Your task to perform on an android device: Go to Yahoo.com Image 0: 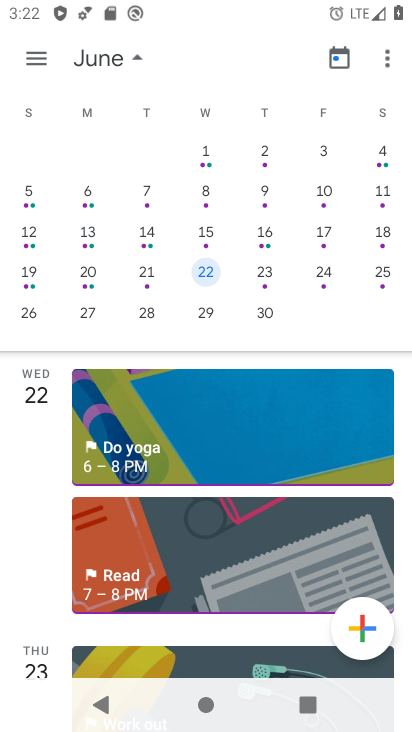
Step 0: press home button
Your task to perform on an android device: Go to Yahoo.com Image 1: 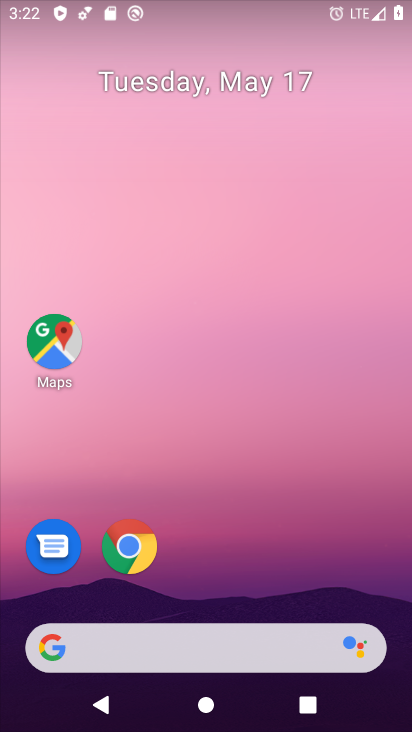
Step 1: drag from (394, 722) to (245, 726)
Your task to perform on an android device: Go to Yahoo.com Image 2: 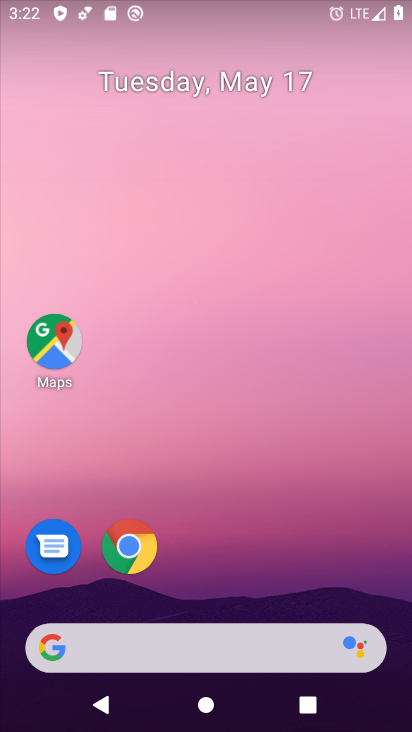
Step 2: click (122, 539)
Your task to perform on an android device: Go to Yahoo.com Image 3: 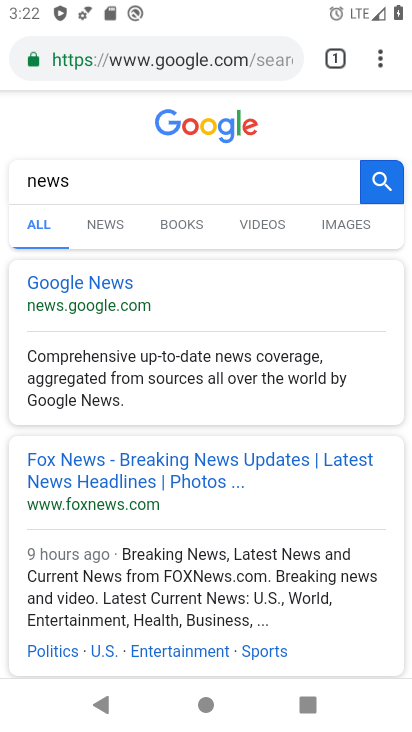
Step 3: click (207, 52)
Your task to perform on an android device: Go to Yahoo.com Image 4: 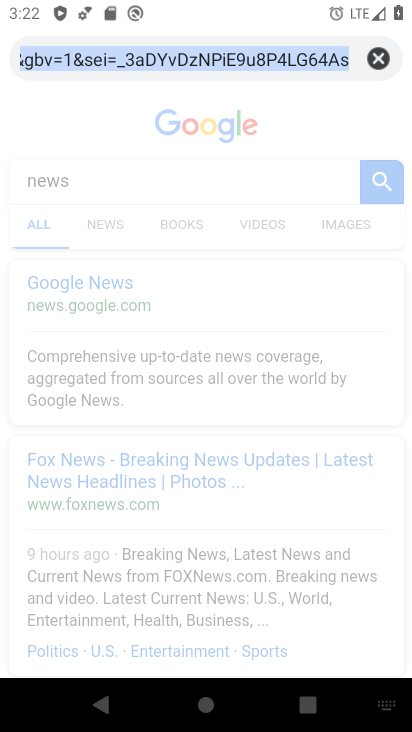
Step 4: click (381, 46)
Your task to perform on an android device: Go to Yahoo.com Image 5: 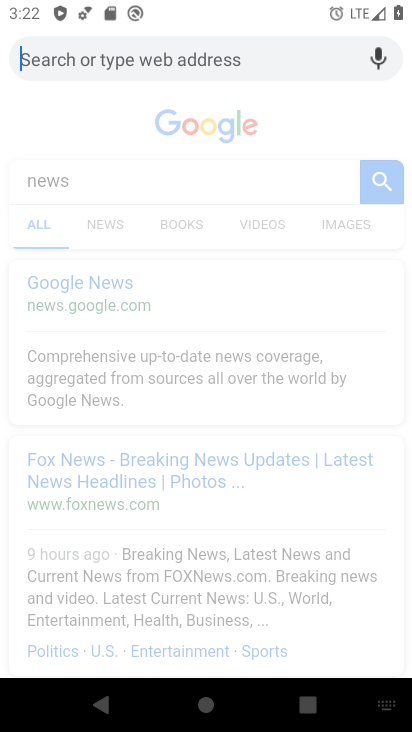
Step 5: type " Yahoo.com"
Your task to perform on an android device: Go to Yahoo.com Image 6: 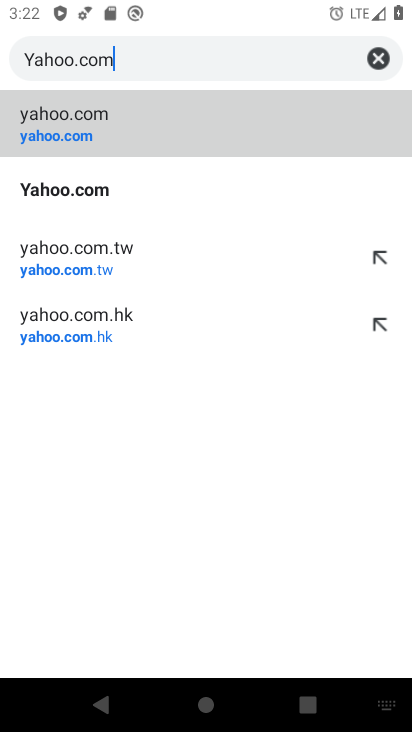
Step 6: click (303, 99)
Your task to perform on an android device: Go to Yahoo.com Image 7: 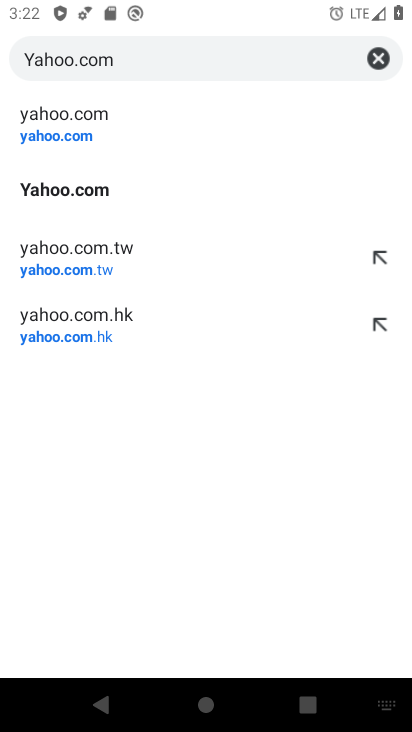
Step 7: click (161, 116)
Your task to perform on an android device: Go to Yahoo.com Image 8: 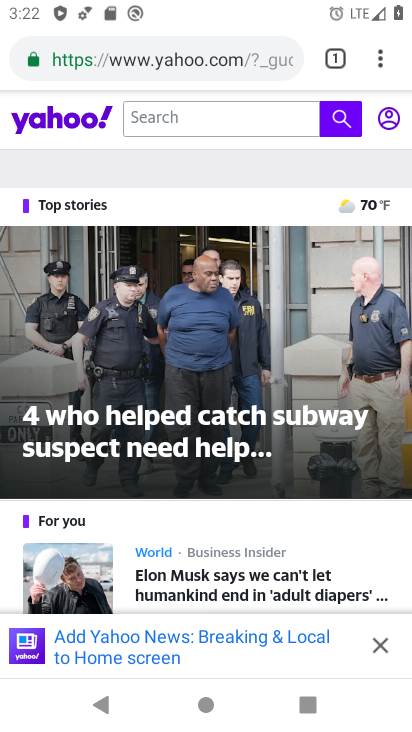
Step 8: task complete